Your task to perform on an android device: Open eBay Image 0: 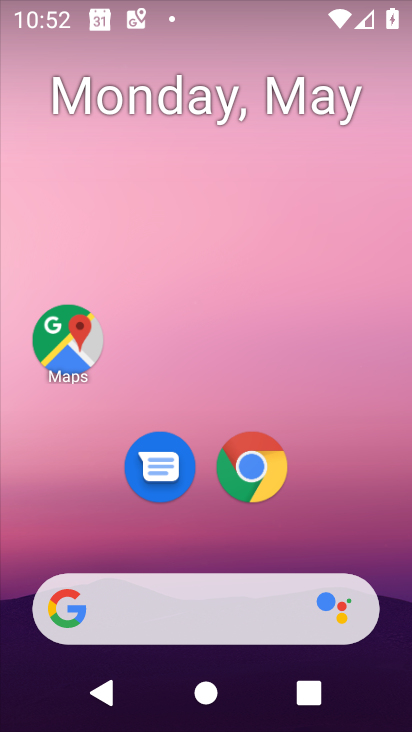
Step 0: drag from (373, 578) to (154, 61)
Your task to perform on an android device: Open eBay Image 1: 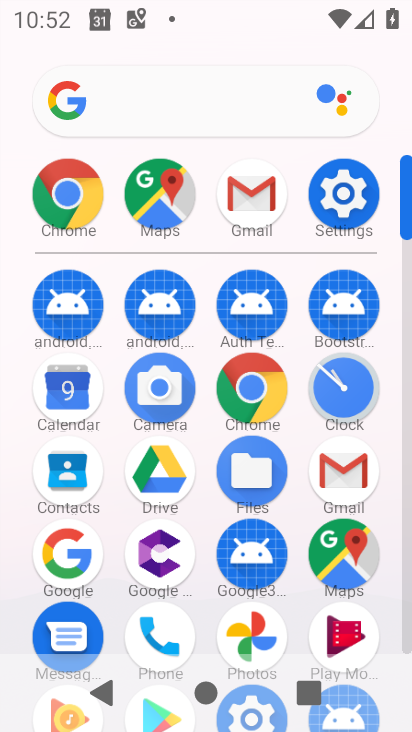
Step 1: click (246, 388)
Your task to perform on an android device: Open eBay Image 2: 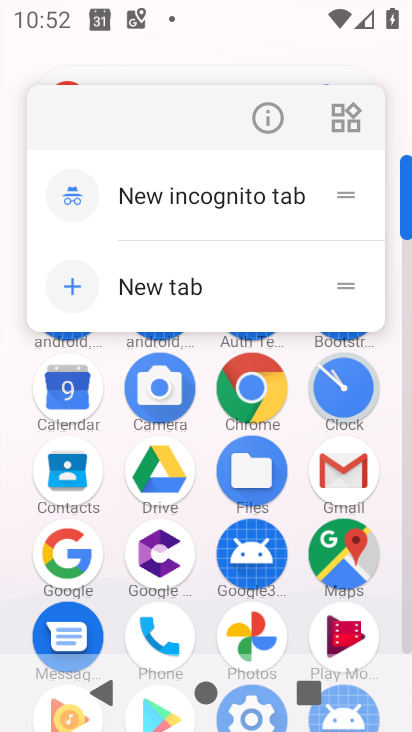
Step 2: click (243, 398)
Your task to perform on an android device: Open eBay Image 3: 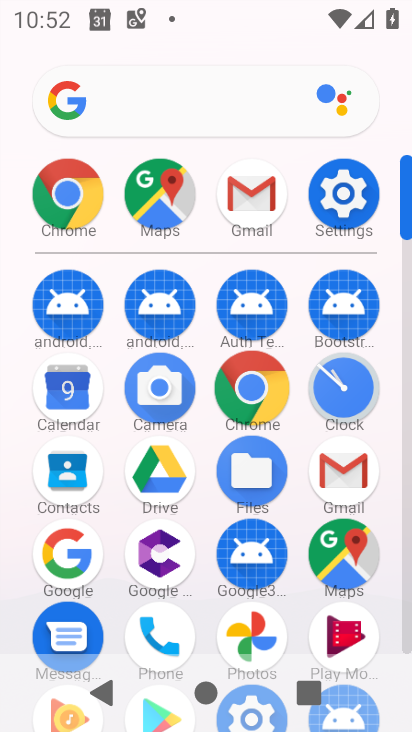
Step 3: click (243, 398)
Your task to perform on an android device: Open eBay Image 4: 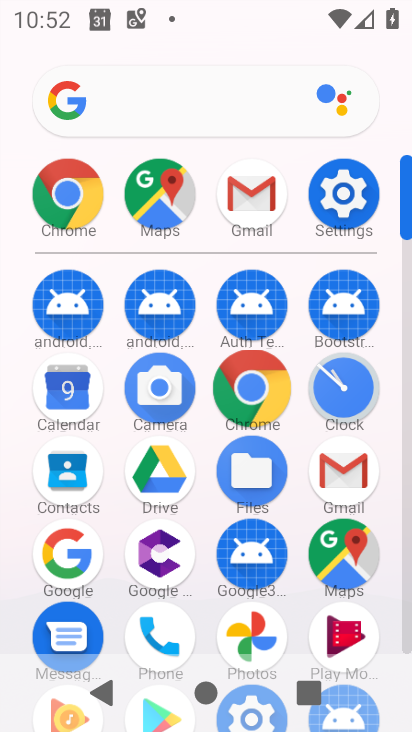
Step 4: click (243, 398)
Your task to perform on an android device: Open eBay Image 5: 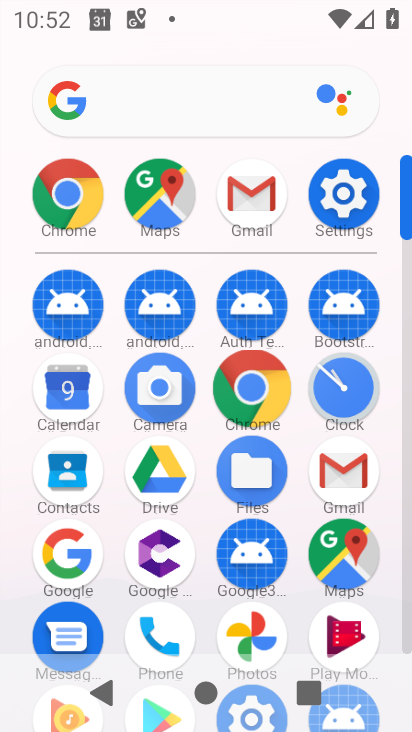
Step 5: click (243, 398)
Your task to perform on an android device: Open eBay Image 6: 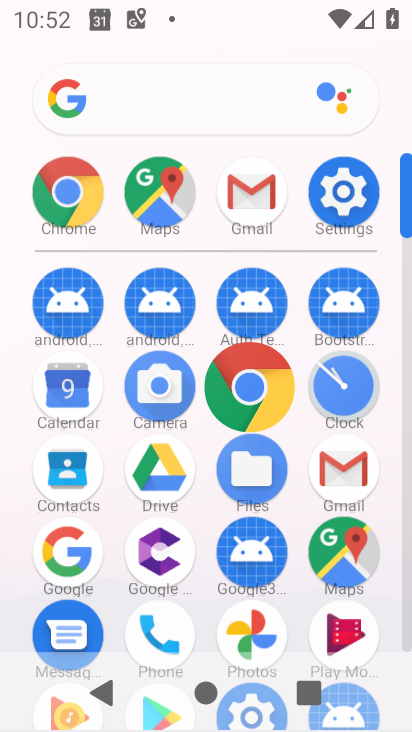
Step 6: click (244, 399)
Your task to perform on an android device: Open eBay Image 7: 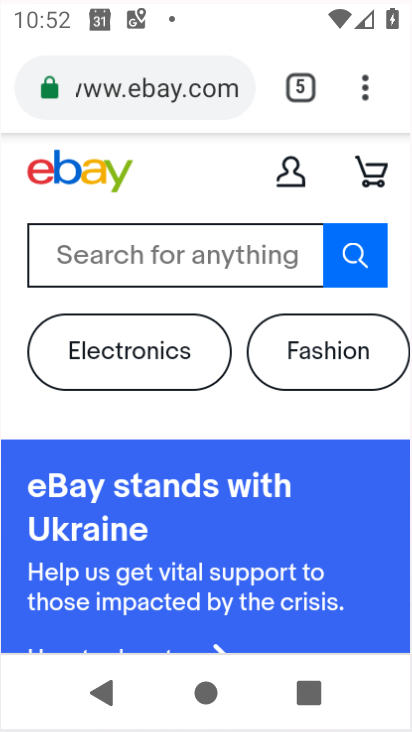
Step 7: click (244, 399)
Your task to perform on an android device: Open eBay Image 8: 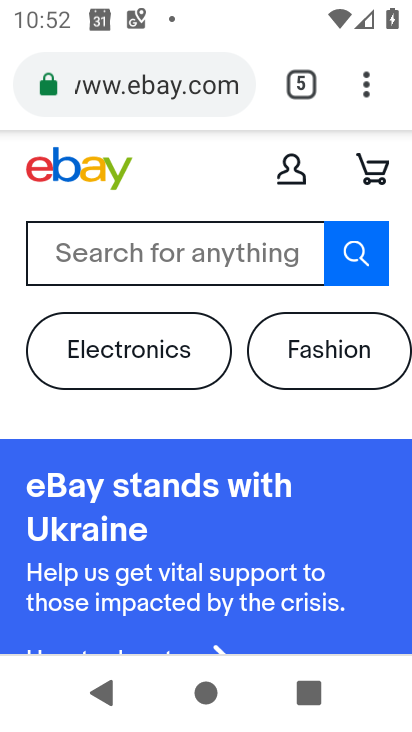
Step 8: click (247, 399)
Your task to perform on an android device: Open eBay Image 9: 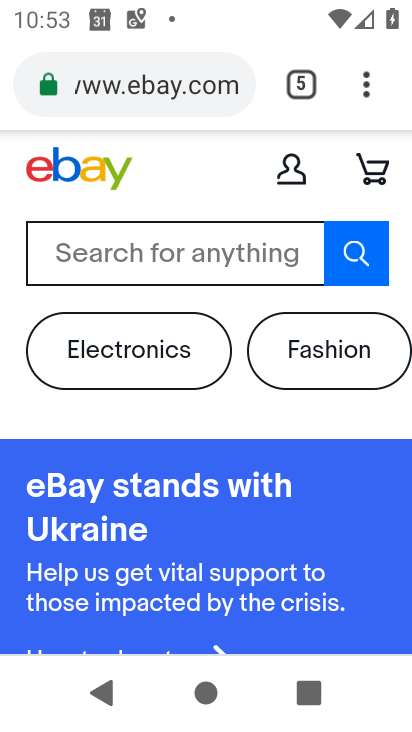
Step 9: task complete